Your task to perform on an android device: refresh tabs in the chrome app Image 0: 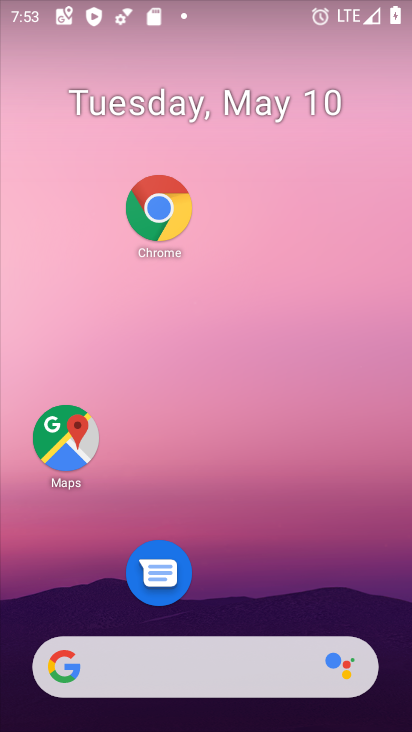
Step 0: drag from (281, 688) to (250, 320)
Your task to perform on an android device: refresh tabs in the chrome app Image 1: 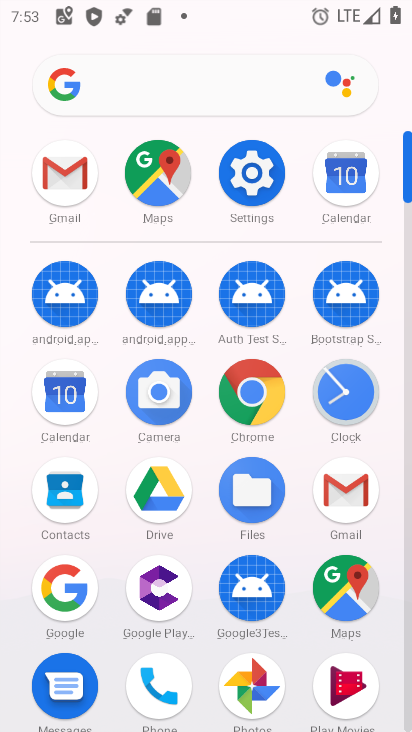
Step 1: click (247, 385)
Your task to perform on an android device: refresh tabs in the chrome app Image 2: 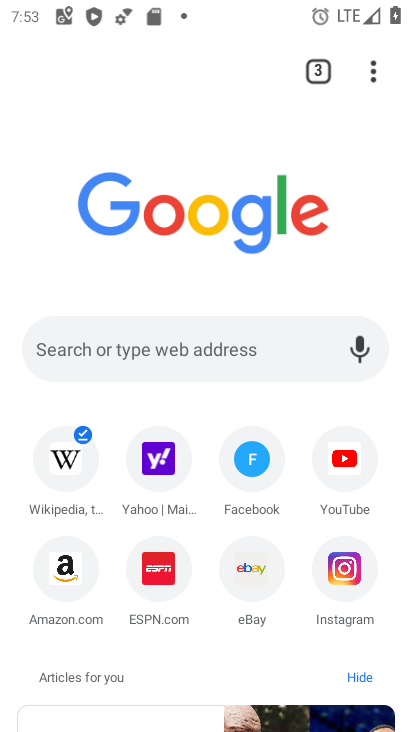
Step 2: click (363, 87)
Your task to perform on an android device: refresh tabs in the chrome app Image 3: 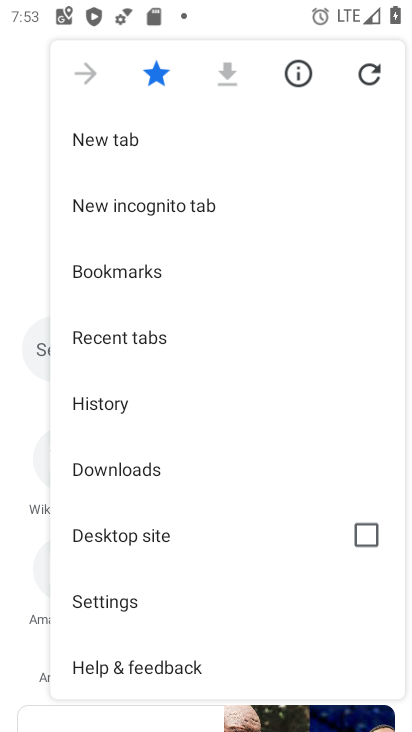
Step 3: click (380, 71)
Your task to perform on an android device: refresh tabs in the chrome app Image 4: 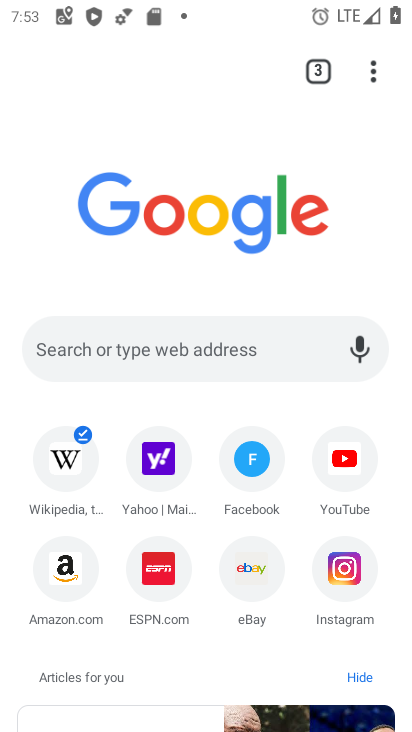
Step 4: task complete